Your task to perform on an android device: check storage Image 0: 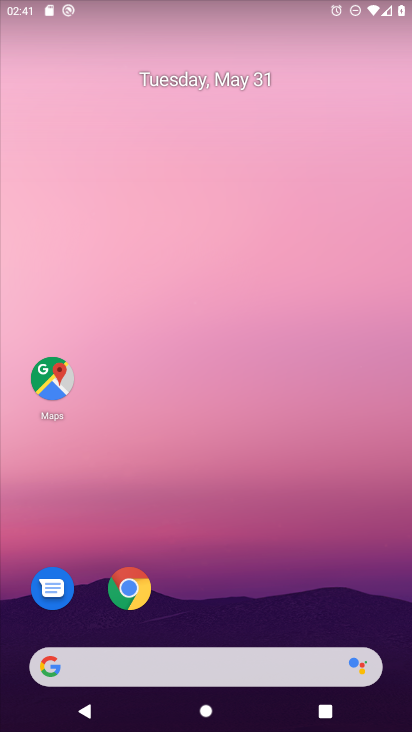
Step 0: drag from (262, 632) to (290, 20)
Your task to perform on an android device: check storage Image 1: 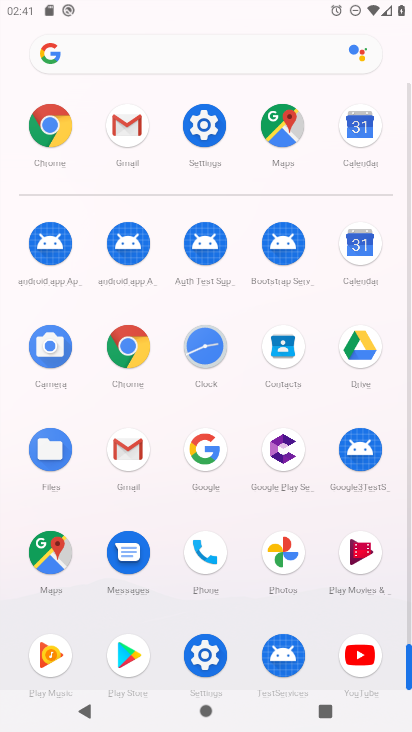
Step 1: click (195, 133)
Your task to perform on an android device: check storage Image 2: 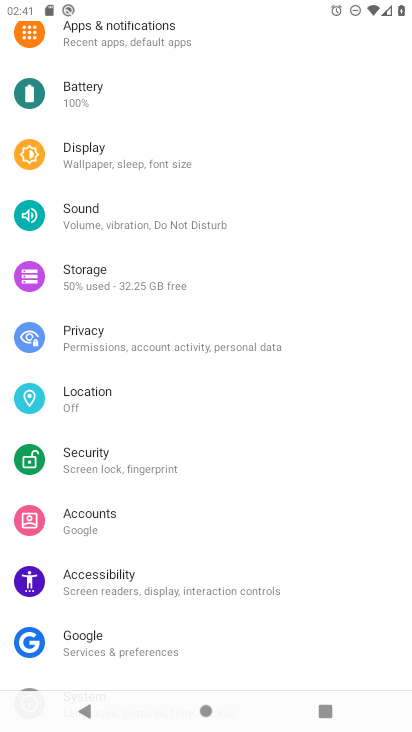
Step 2: click (93, 291)
Your task to perform on an android device: check storage Image 3: 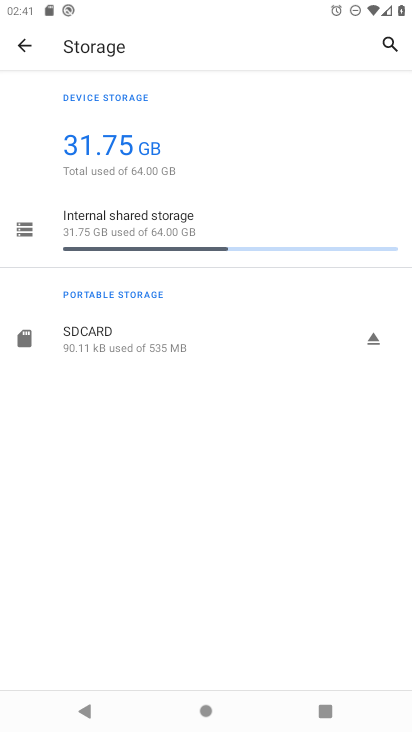
Step 3: task complete